Your task to perform on an android device: turn on sleep mode Image 0: 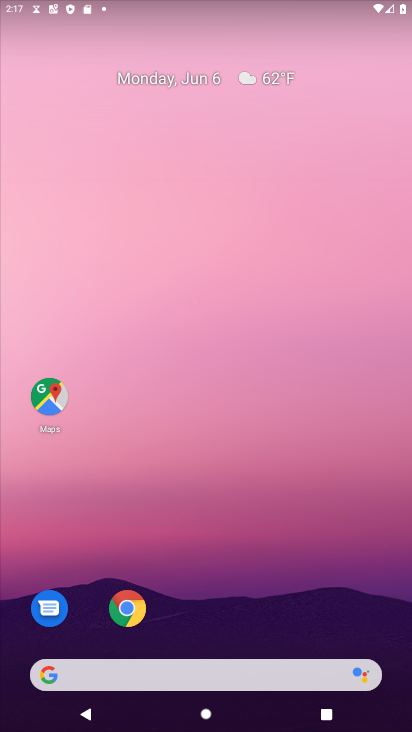
Step 0: drag from (280, 615) to (159, 9)
Your task to perform on an android device: turn on sleep mode Image 1: 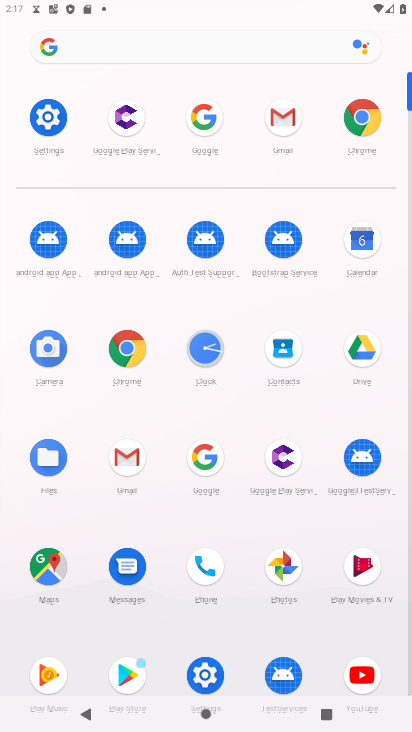
Step 1: click (37, 155)
Your task to perform on an android device: turn on sleep mode Image 2: 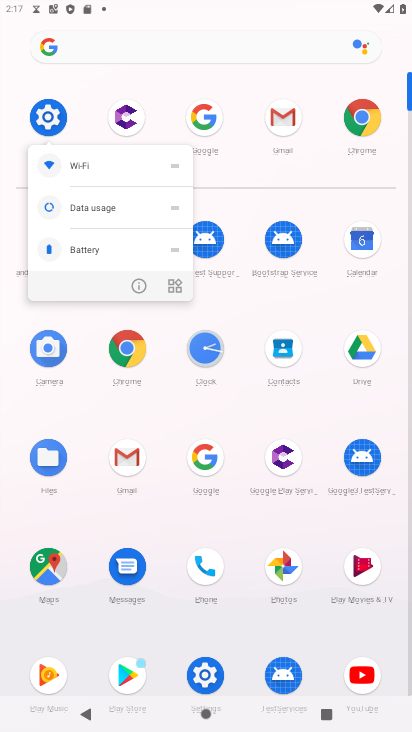
Step 2: click (34, 125)
Your task to perform on an android device: turn on sleep mode Image 3: 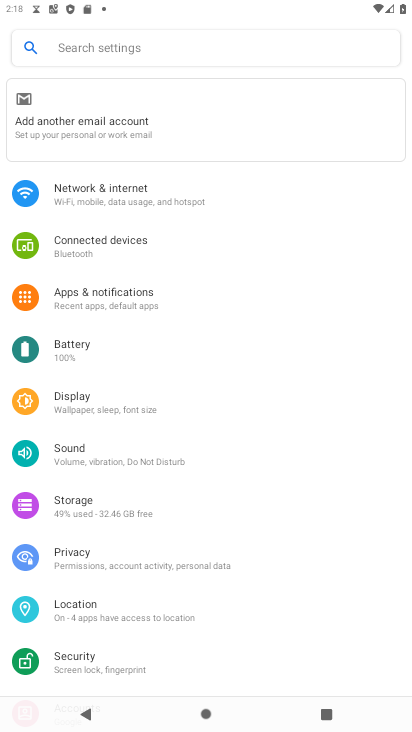
Step 3: click (106, 398)
Your task to perform on an android device: turn on sleep mode Image 4: 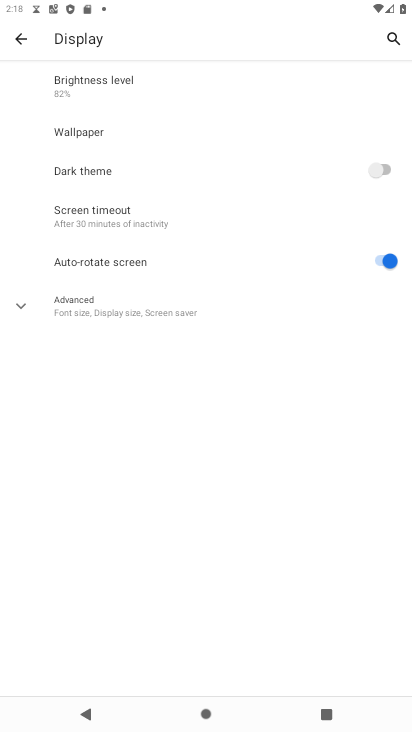
Step 4: click (137, 227)
Your task to perform on an android device: turn on sleep mode Image 5: 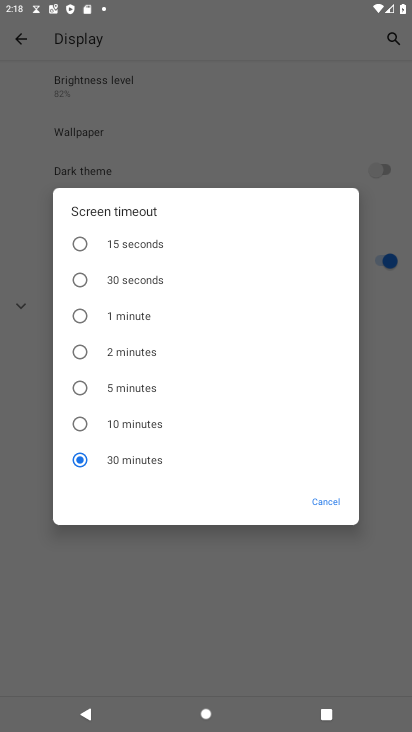
Step 5: task complete